Your task to perform on an android device: check the backup settings in the google photos Image 0: 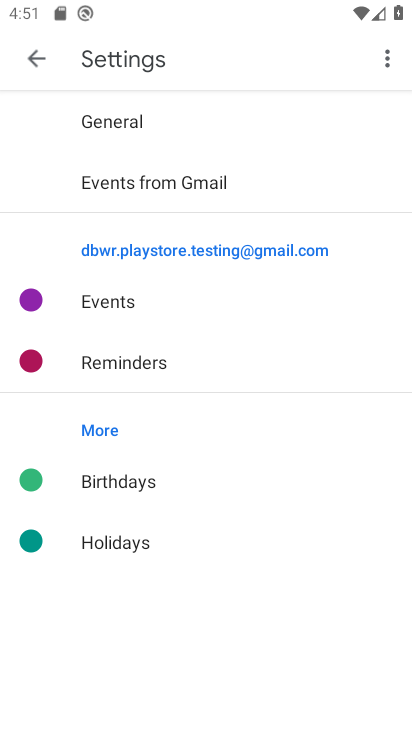
Step 0: press home button
Your task to perform on an android device: check the backup settings in the google photos Image 1: 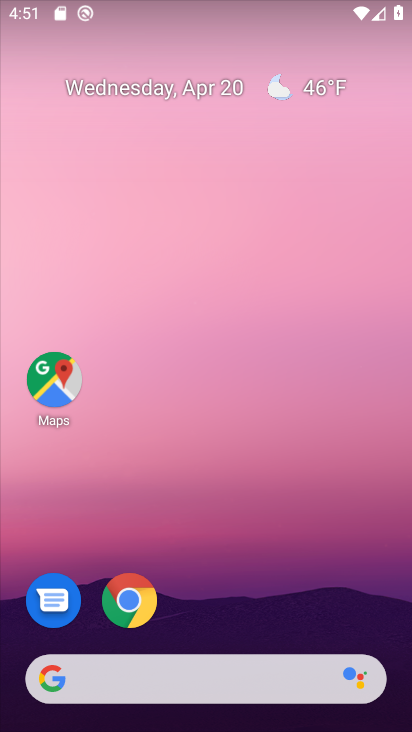
Step 1: drag from (209, 629) to (207, 92)
Your task to perform on an android device: check the backup settings in the google photos Image 2: 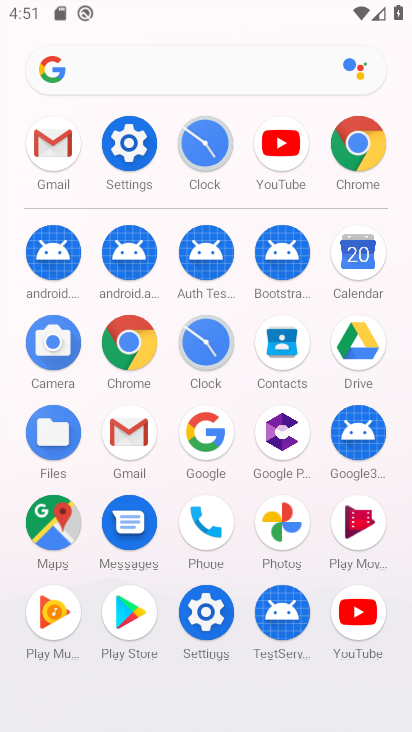
Step 2: click (283, 519)
Your task to perform on an android device: check the backup settings in the google photos Image 3: 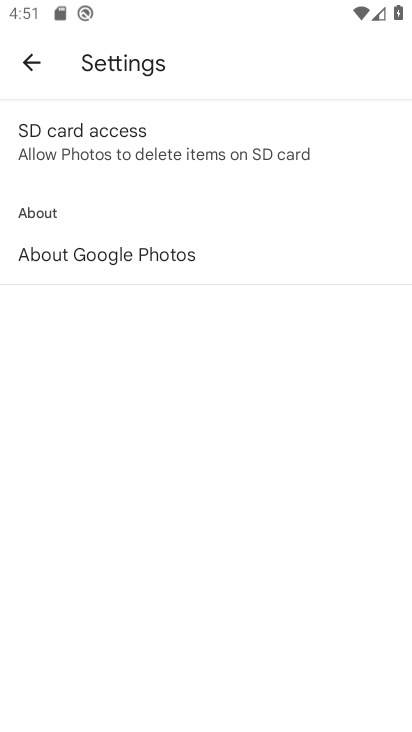
Step 3: click (31, 62)
Your task to perform on an android device: check the backup settings in the google photos Image 4: 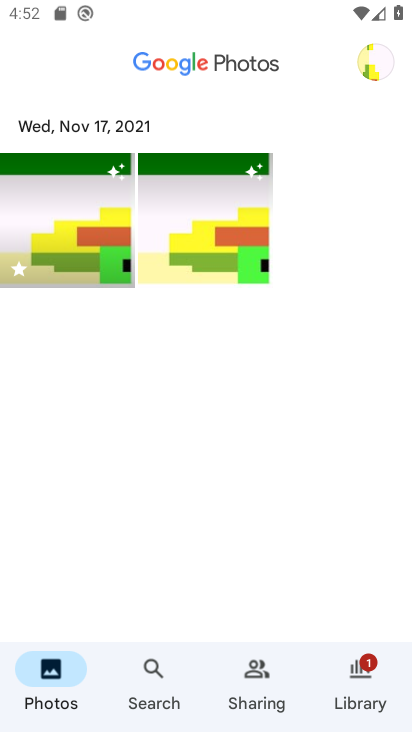
Step 4: click (379, 62)
Your task to perform on an android device: check the backup settings in the google photos Image 5: 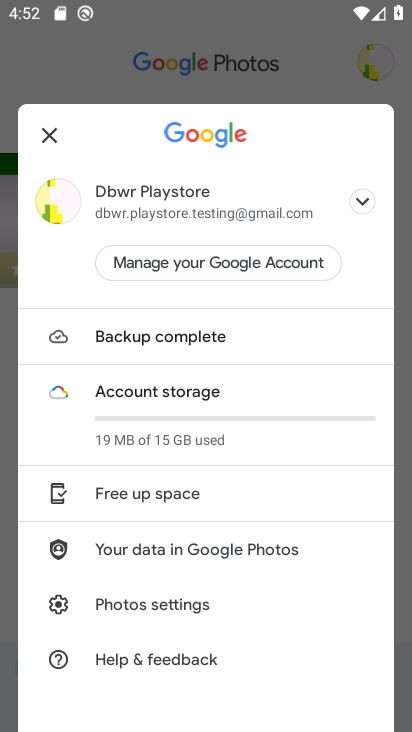
Step 5: click (226, 332)
Your task to perform on an android device: check the backup settings in the google photos Image 6: 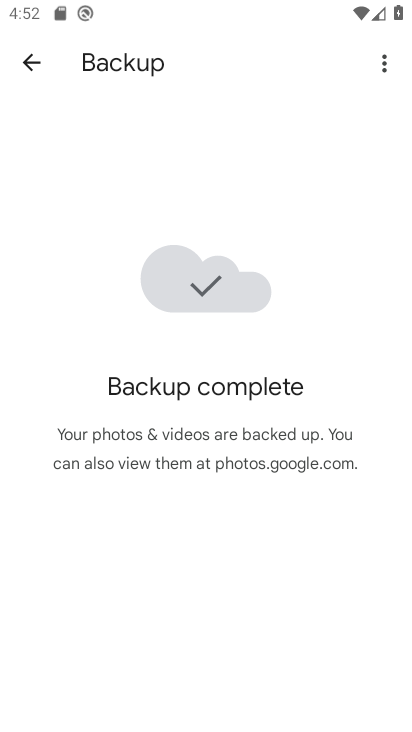
Step 6: click (382, 60)
Your task to perform on an android device: check the backup settings in the google photos Image 7: 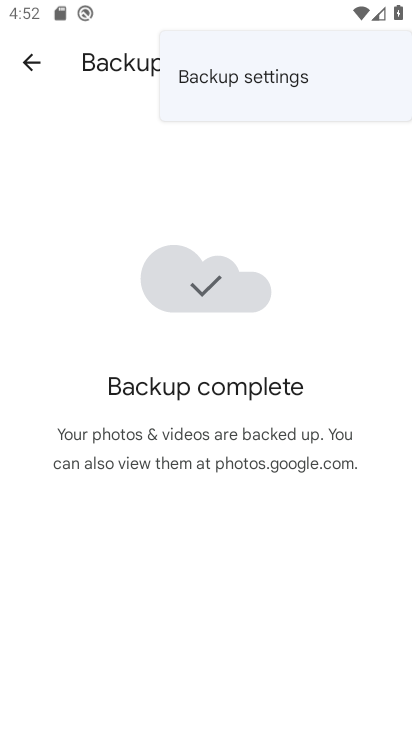
Step 7: click (259, 91)
Your task to perform on an android device: check the backup settings in the google photos Image 8: 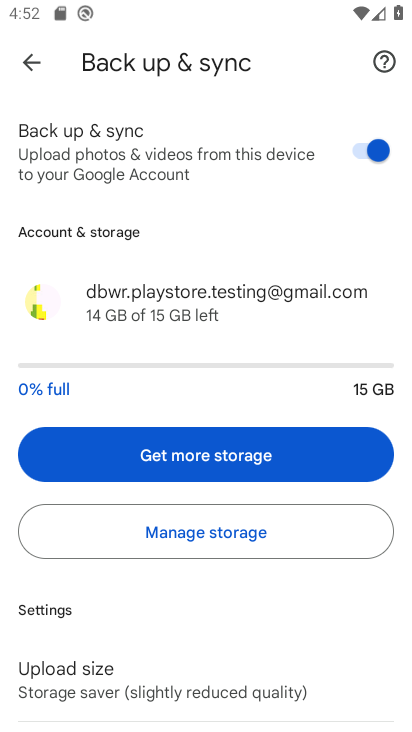
Step 8: task complete